Your task to perform on an android device: toggle airplane mode Image 0: 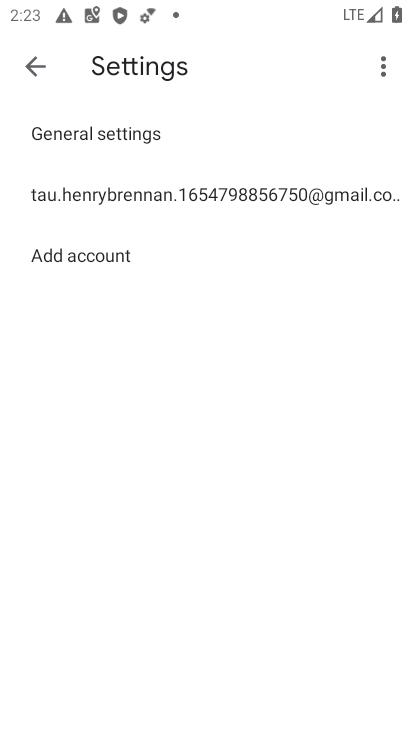
Step 0: press home button
Your task to perform on an android device: toggle airplane mode Image 1: 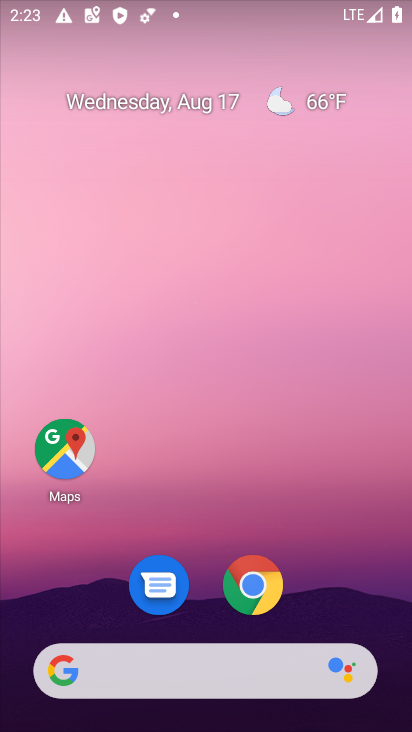
Step 1: drag from (194, 499) to (243, 0)
Your task to perform on an android device: toggle airplane mode Image 2: 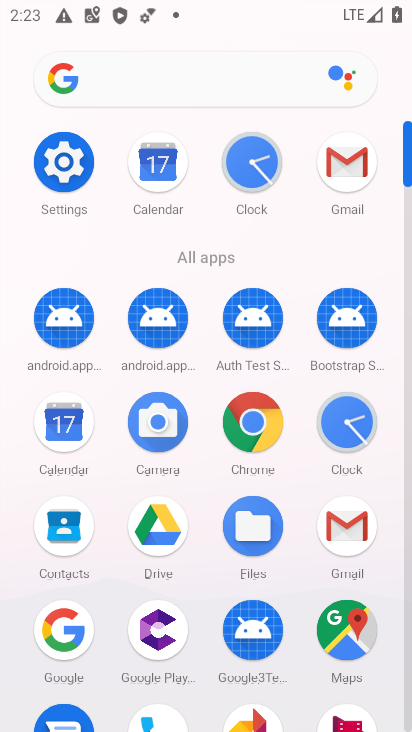
Step 2: click (66, 162)
Your task to perform on an android device: toggle airplane mode Image 3: 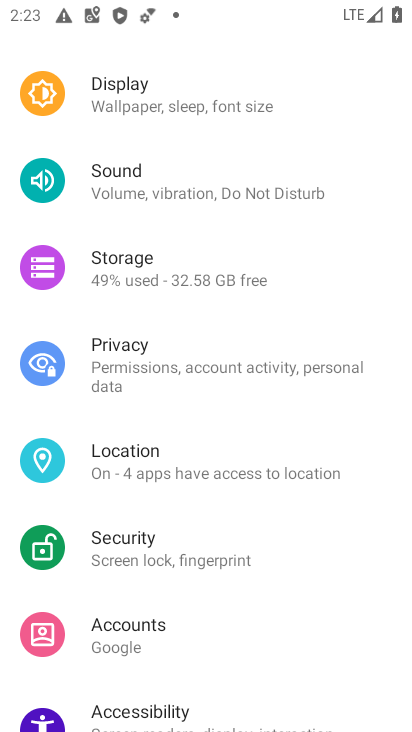
Step 3: drag from (225, 169) to (199, 728)
Your task to perform on an android device: toggle airplane mode Image 4: 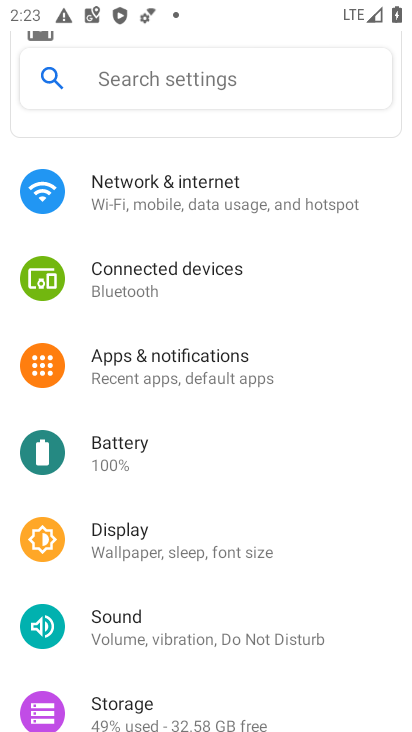
Step 4: click (221, 204)
Your task to perform on an android device: toggle airplane mode Image 5: 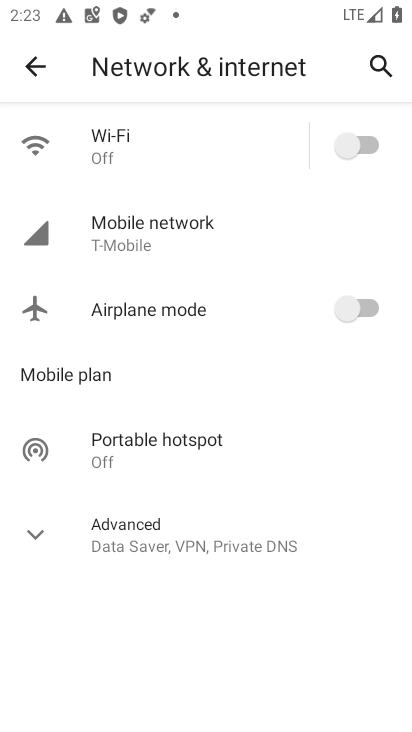
Step 5: click (350, 299)
Your task to perform on an android device: toggle airplane mode Image 6: 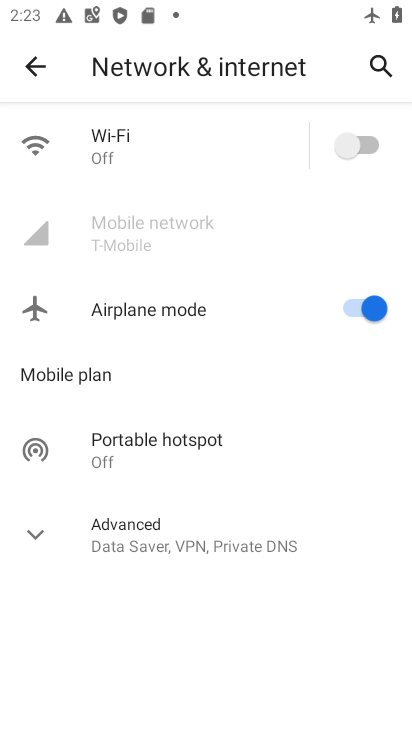
Step 6: task complete